Your task to perform on an android device: Open CNN.com Image 0: 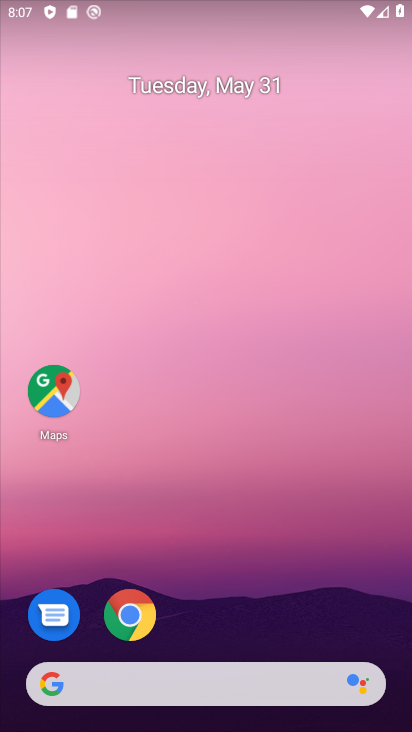
Step 0: click (128, 612)
Your task to perform on an android device: Open CNN.com Image 1: 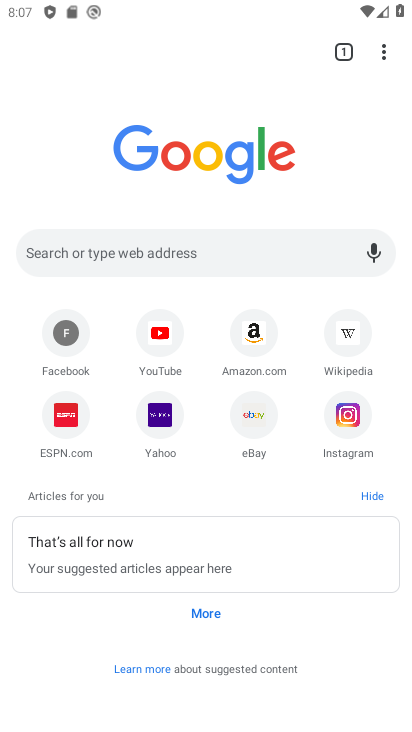
Step 1: click (145, 243)
Your task to perform on an android device: Open CNN.com Image 2: 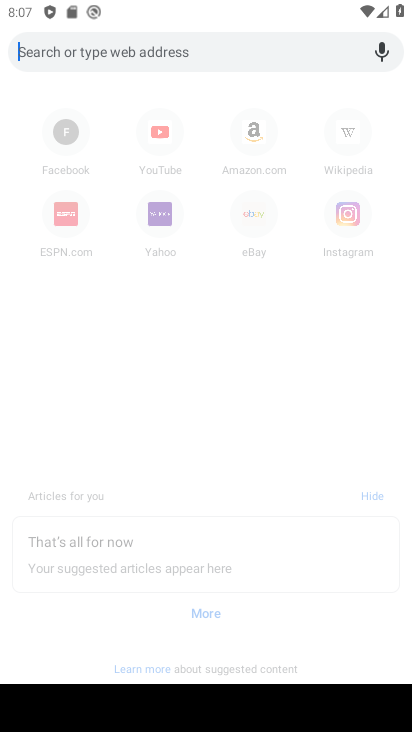
Step 2: type "cnn.com"
Your task to perform on an android device: Open CNN.com Image 3: 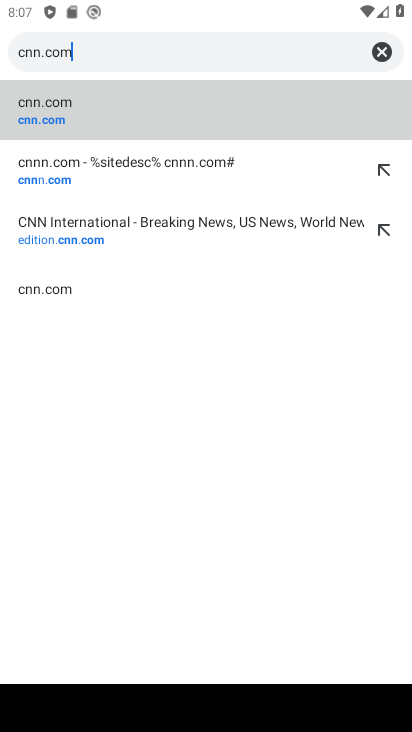
Step 3: click (57, 105)
Your task to perform on an android device: Open CNN.com Image 4: 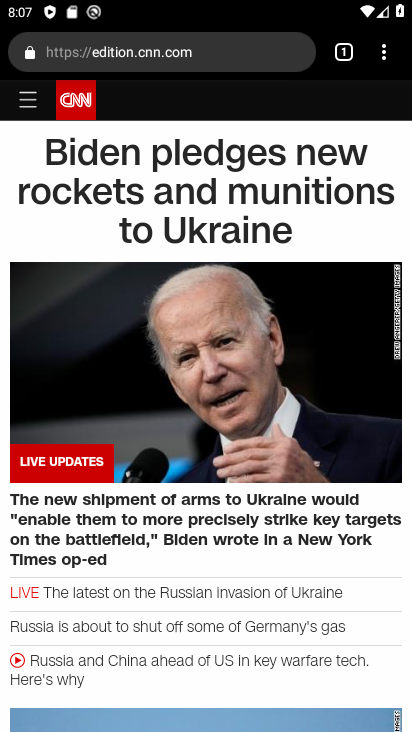
Step 4: drag from (283, 527) to (278, 419)
Your task to perform on an android device: Open CNN.com Image 5: 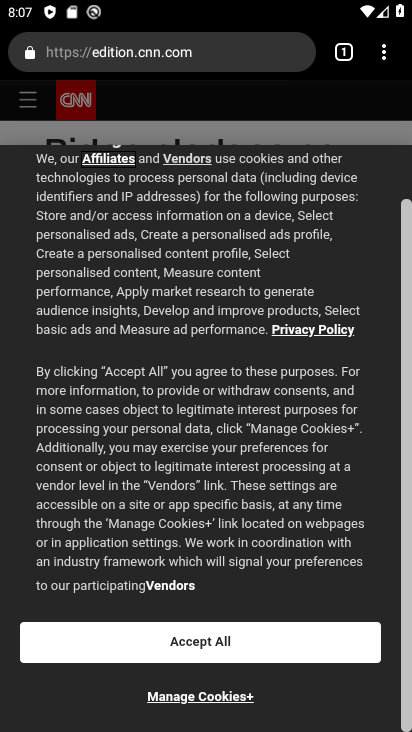
Step 5: click (198, 642)
Your task to perform on an android device: Open CNN.com Image 6: 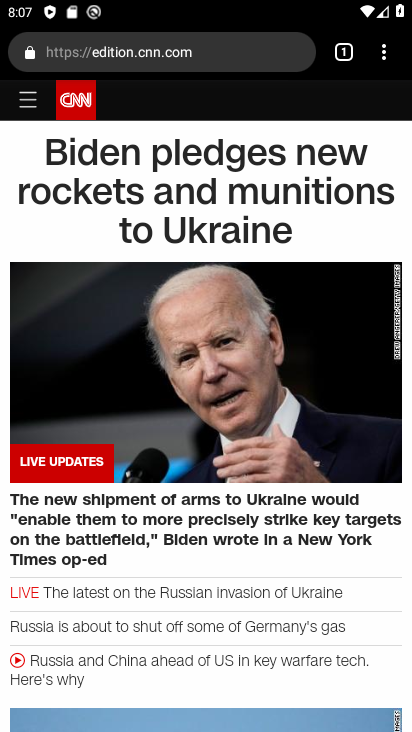
Step 6: task complete